Your task to perform on an android device: delete location history Image 0: 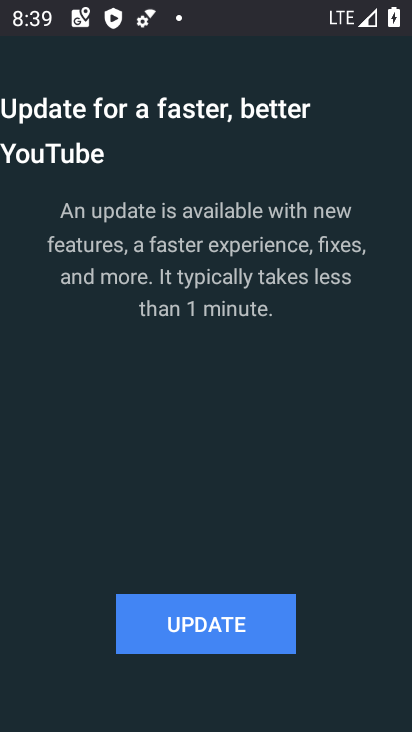
Step 0: press home button
Your task to perform on an android device: delete location history Image 1: 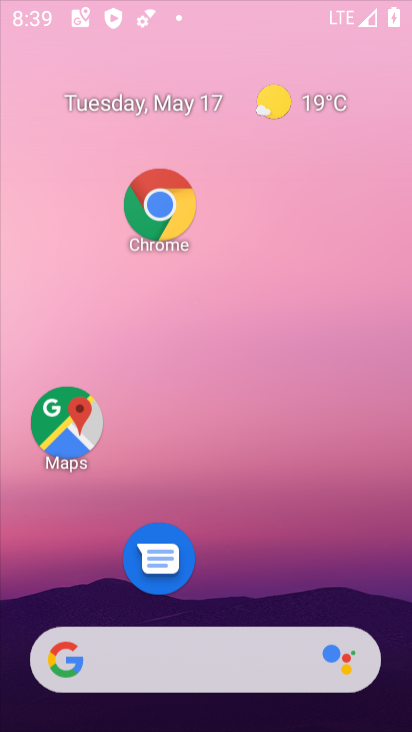
Step 1: drag from (184, 680) to (174, 16)
Your task to perform on an android device: delete location history Image 2: 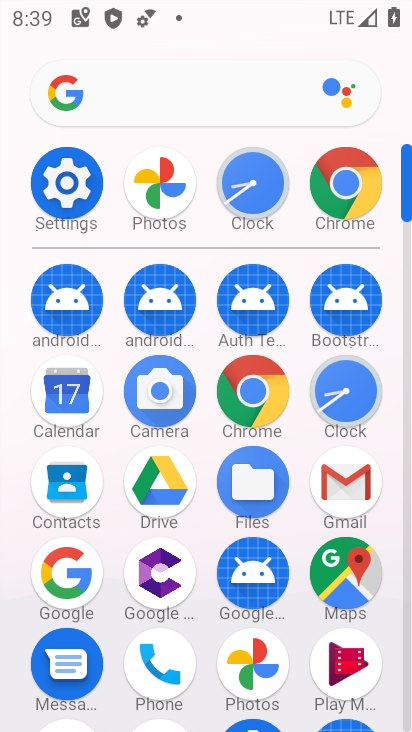
Step 2: click (57, 177)
Your task to perform on an android device: delete location history Image 3: 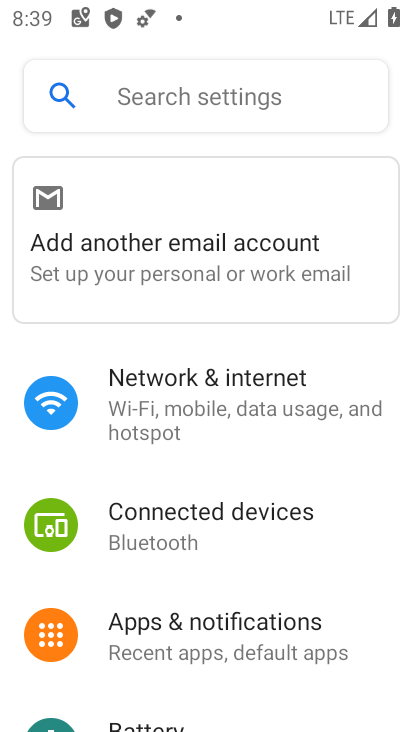
Step 3: drag from (225, 624) to (221, 219)
Your task to perform on an android device: delete location history Image 4: 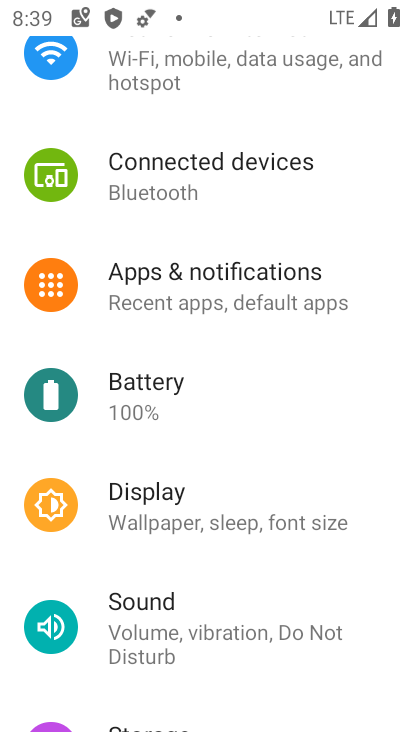
Step 4: press home button
Your task to perform on an android device: delete location history Image 5: 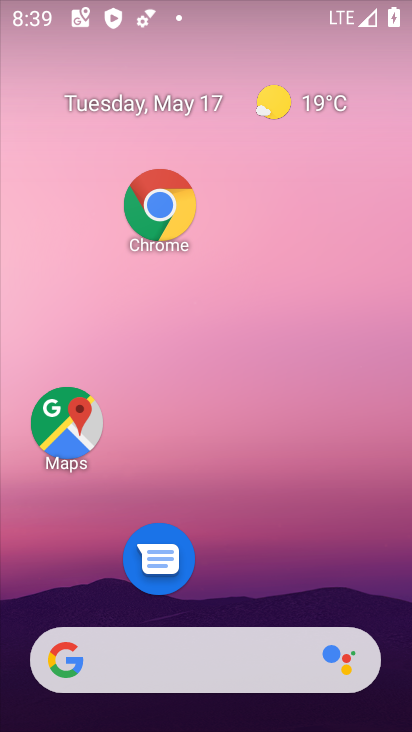
Step 5: drag from (192, 618) to (263, 49)
Your task to perform on an android device: delete location history Image 6: 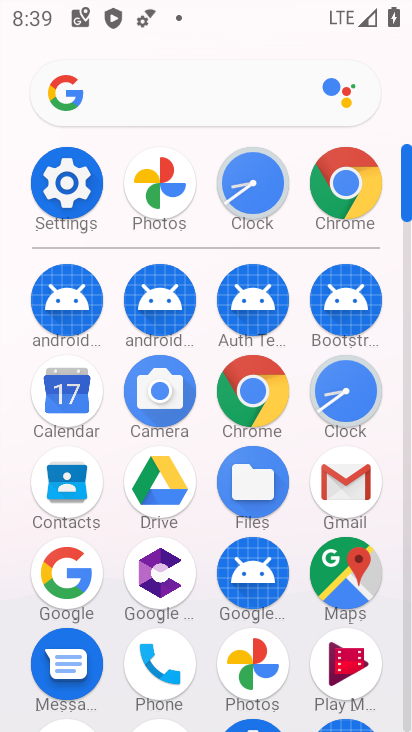
Step 6: click (80, 196)
Your task to perform on an android device: delete location history Image 7: 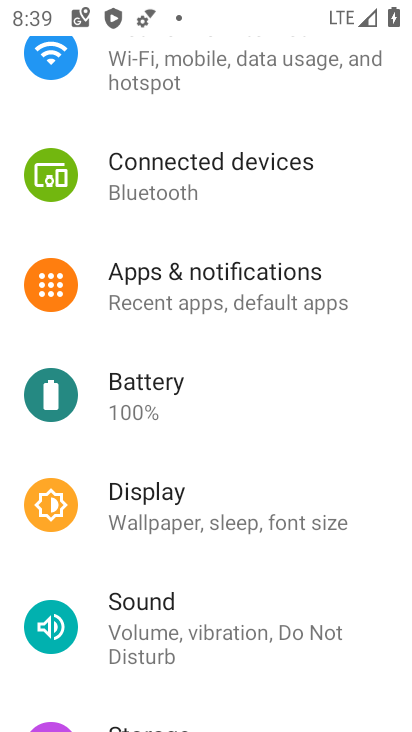
Step 7: drag from (200, 624) to (247, 65)
Your task to perform on an android device: delete location history Image 8: 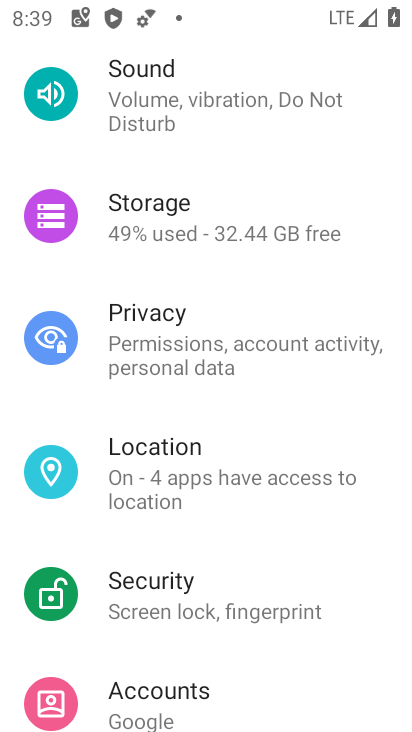
Step 8: click (178, 474)
Your task to perform on an android device: delete location history Image 9: 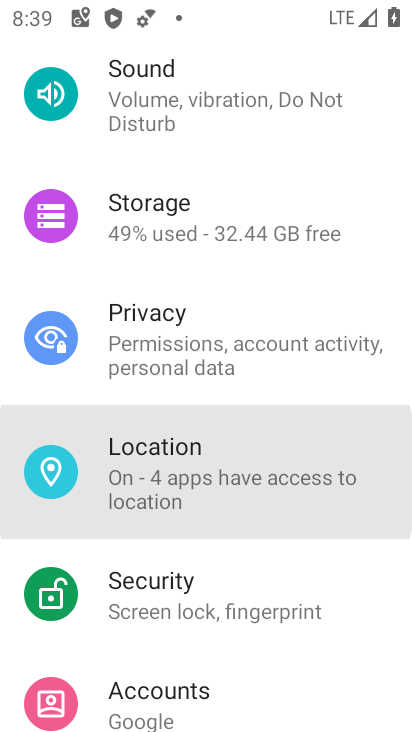
Step 9: click (178, 474)
Your task to perform on an android device: delete location history Image 10: 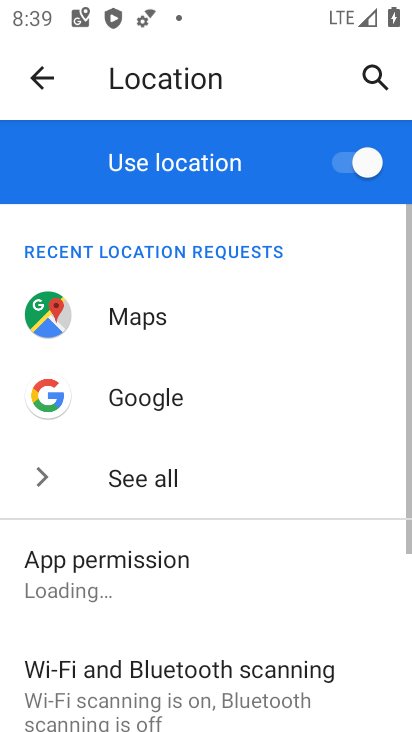
Step 10: drag from (180, 610) to (193, 233)
Your task to perform on an android device: delete location history Image 11: 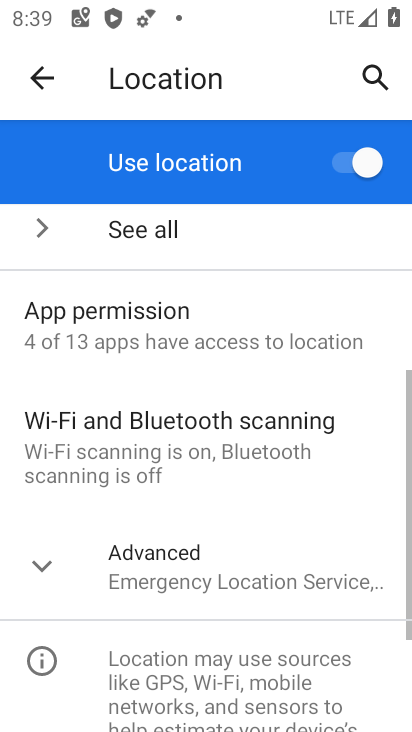
Step 11: click (172, 568)
Your task to perform on an android device: delete location history Image 12: 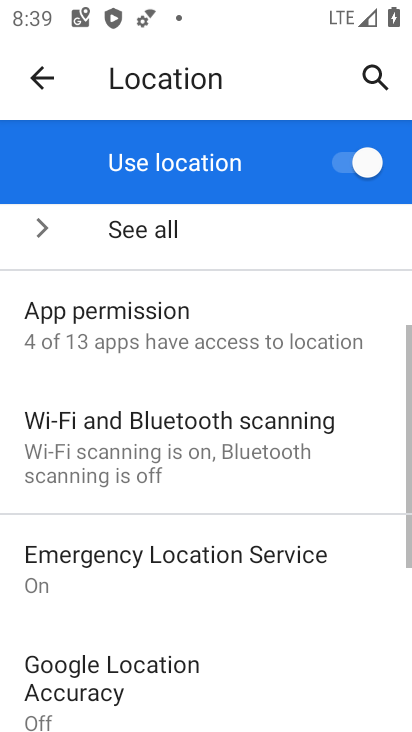
Step 12: drag from (177, 559) to (239, 137)
Your task to perform on an android device: delete location history Image 13: 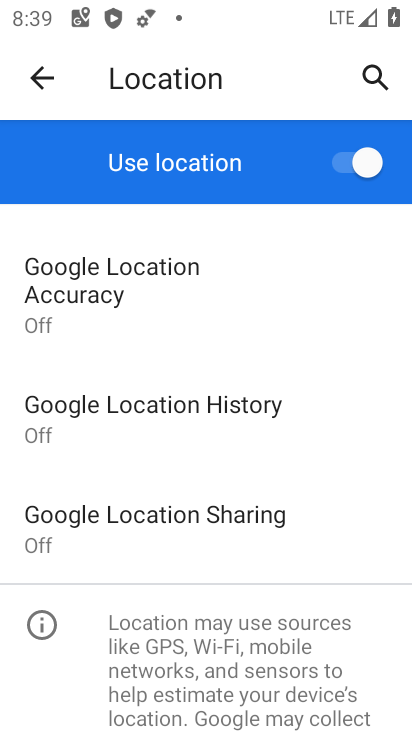
Step 13: click (228, 428)
Your task to perform on an android device: delete location history Image 14: 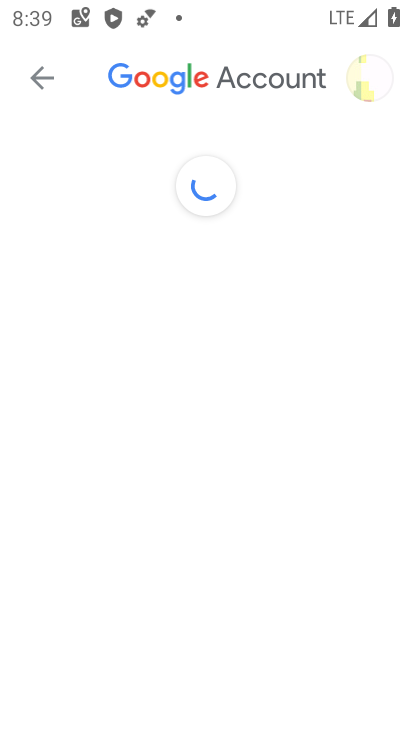
Step 14: drag from (285, 627) to (320, 125)
Your task to perform on an android device: delete location history Image 15: 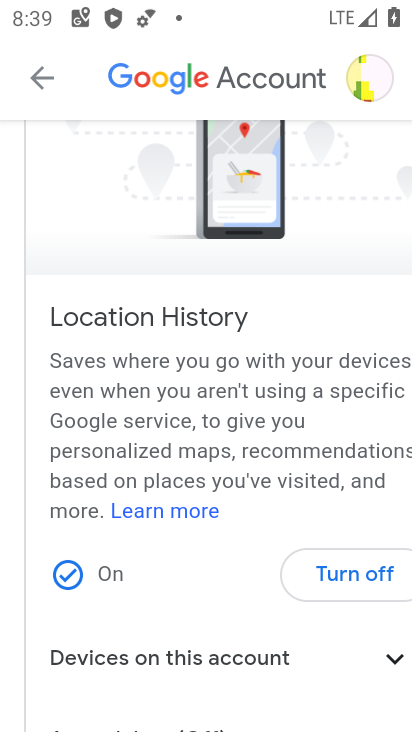
Step 15: drag from (233, 598) to (272, 126)
Your task to perform on an android device: delete location history Image 16: 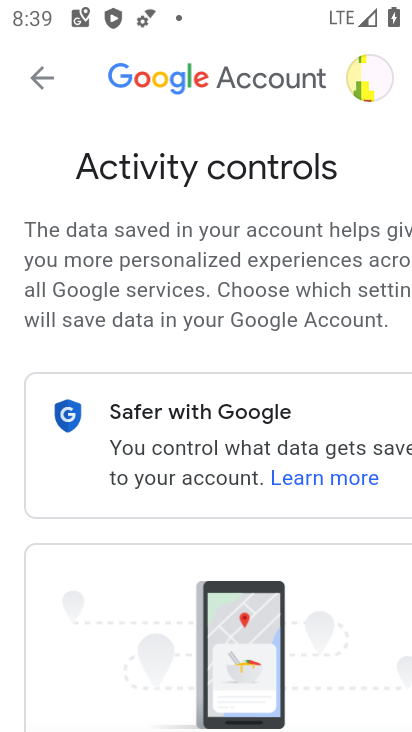
Step 16: drag from (197, 513) to (230, 68)
Your task to perform on an android device: delete location history Image 17: 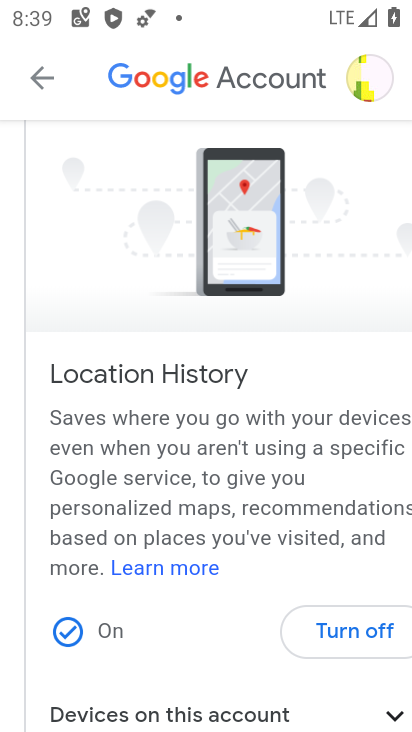
Step 17: drag from (220, 539) to (245, 143)
Your task to perform on an android device: delete location history Image 18: 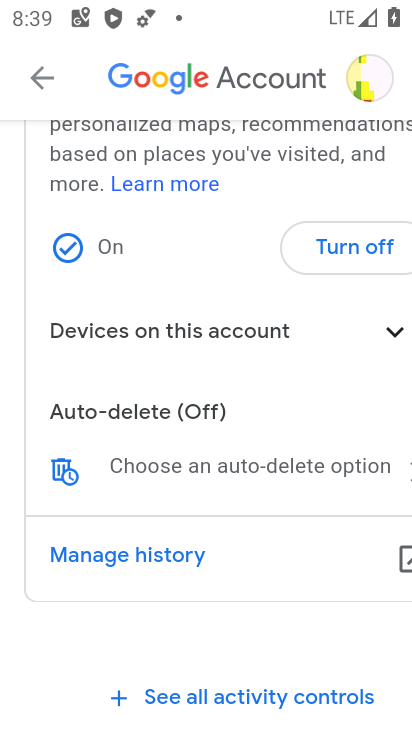
Step 18: click (65, 473)
Your task to perform on an android device: delete location history Image 19: 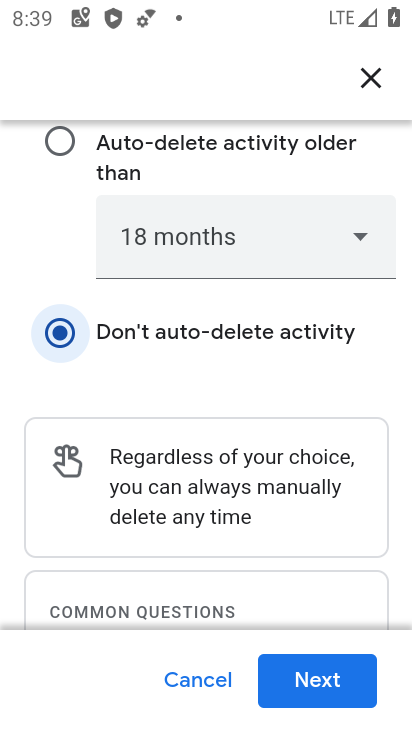
Step 19: drag from (245, 604) to (310, 120)
Your task to perform on an android device: delete location history Image 20: 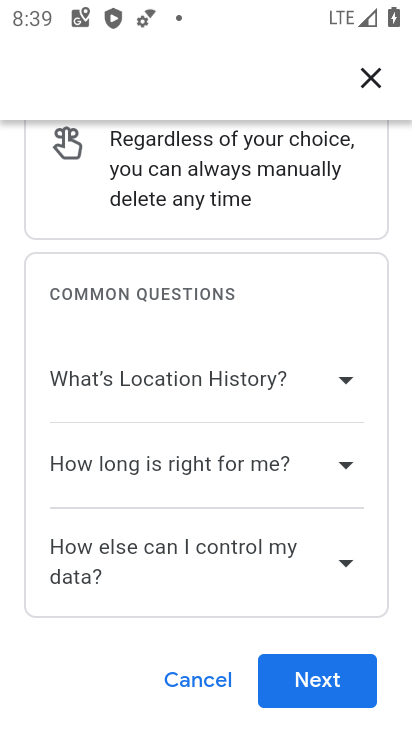
Step 20: drag from (235, 574) to (283, 115)
Your task to perform on an android device: delete location history Image 21: 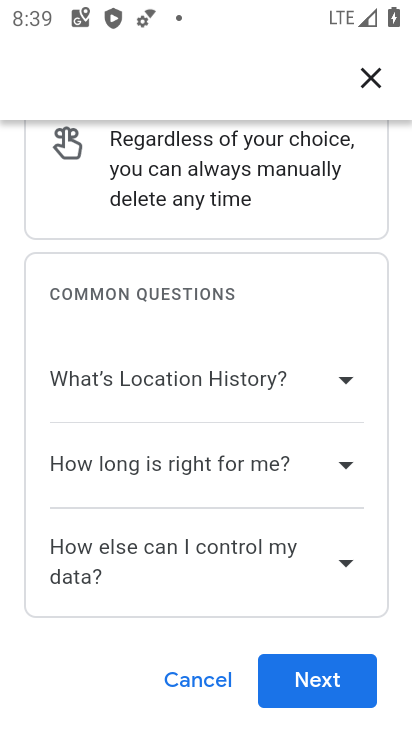
Step 21: click (309, 669)
Your task to perform on an android device: delete location history Image 22: 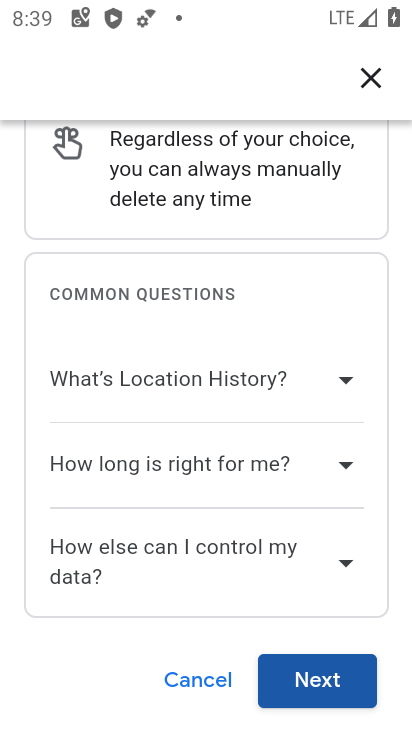
Step 22: click (328, 686)
Your task to perform on an android device: delete location history Image 23: 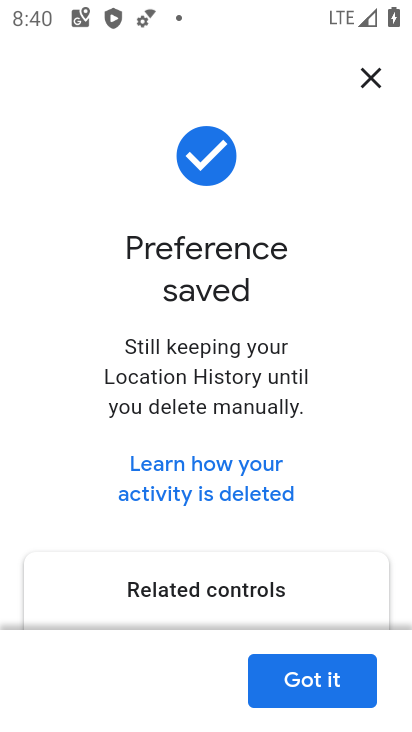
Step 23: click (307, 671)
Your task to perform on an android device: delete location history Image 24: 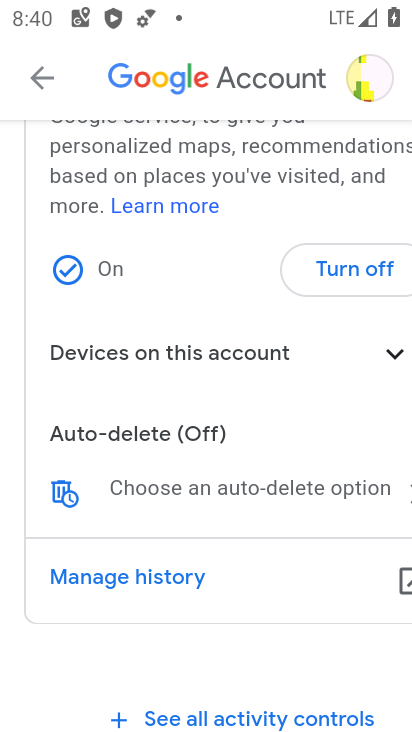
Step 24: task complete